Your task to perform on an android device: toggle priority inbox in the gmail app Image 0: 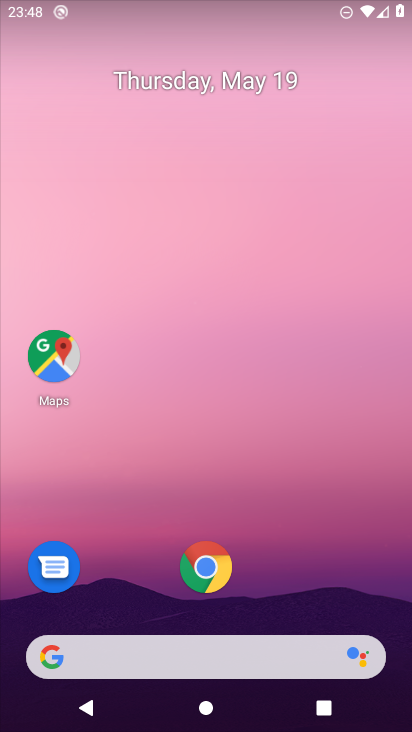
Step 0: drag from (268, 622) to (334, 4)
Your task to perform on an android device: toggle priority inbox in the gmail app Image 1: 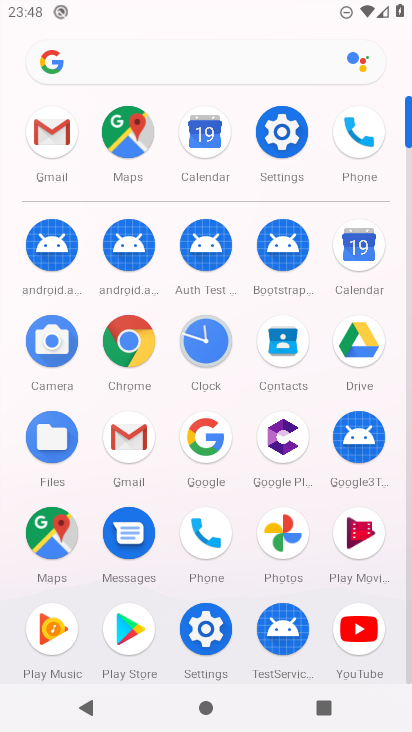
Step 1: click (126, 435)
Your task to perform on an android device: toggle priority inbox in the gmail app Image 2: 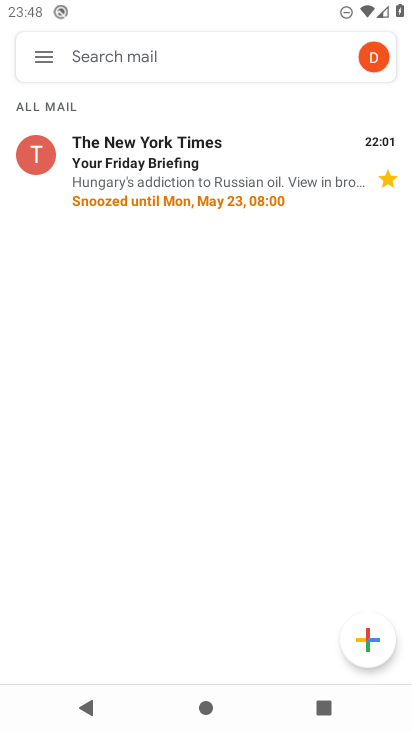
Step 2: click (36, 51)
Your task to perform on an android device: toggle priority inbox in the gmail app Image 3: 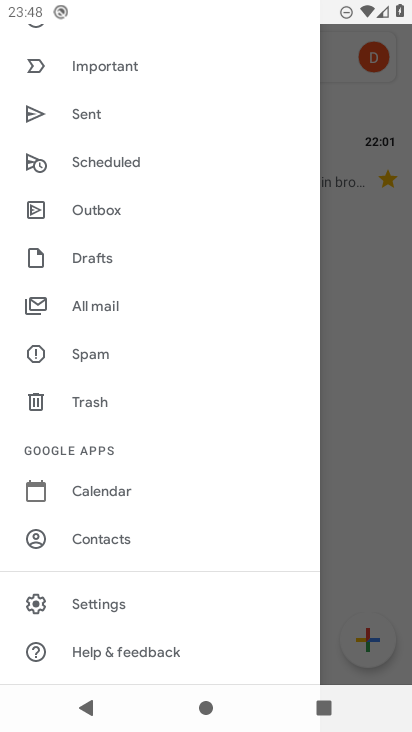
Step 3: click (136, 598)
Your task to perform on an android device: toggle priority inbox in the gmail app Image 4: 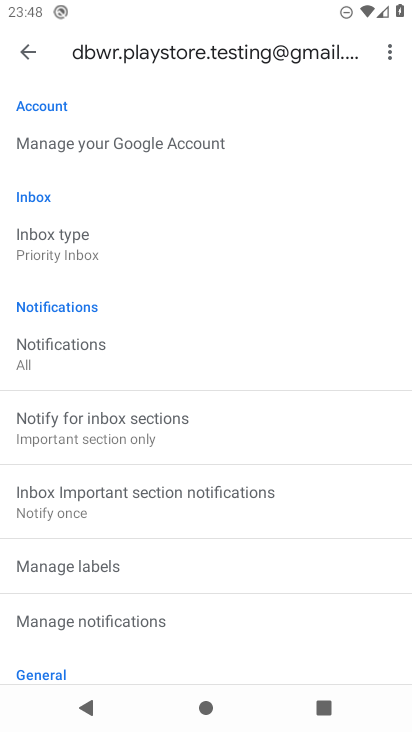
Step 4: click (109, 235)
Your task to perform on an android device: toggle priority inbox in the gmail app Image 5: 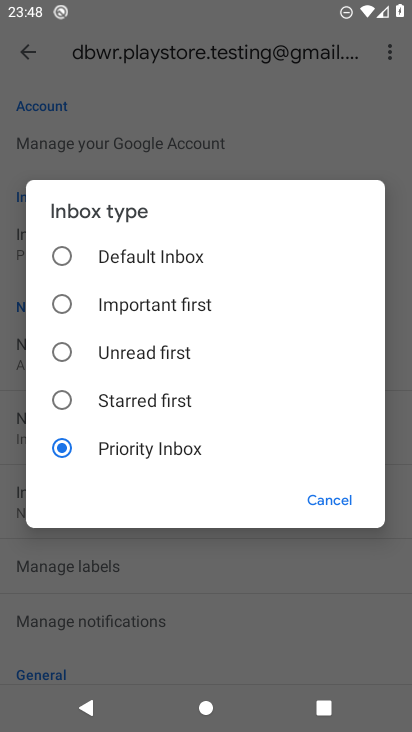
Step 5: click (214, 447)
Your task to perform on an android device: toggle priority inbox in the gmail app Image 6: 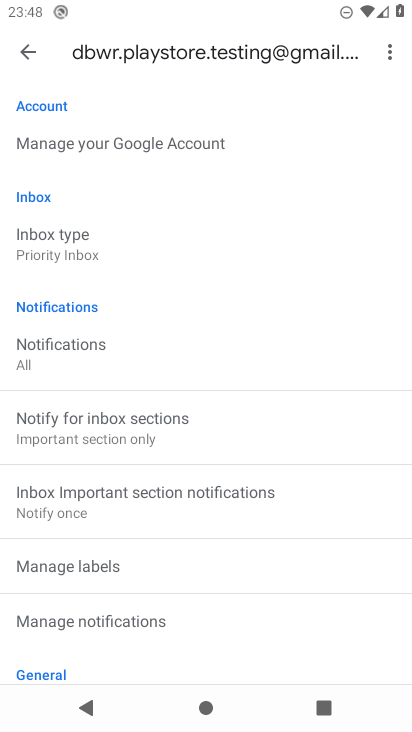
Step 6: task complete